Your task to perform on an android device: change text size in settings app Image 0: 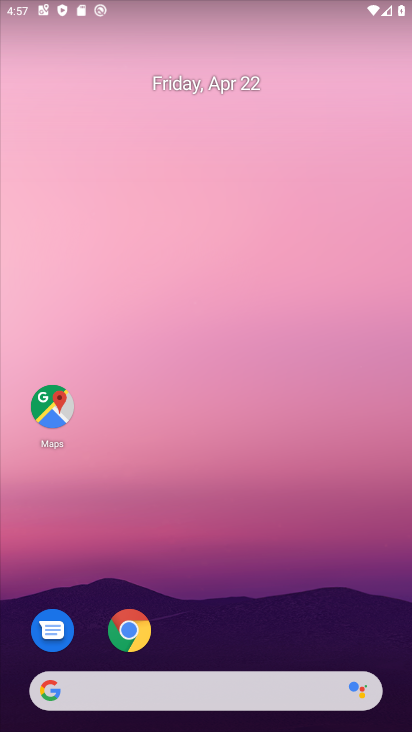
Step 0: drag from (232, 566) to (165, 36)
Your task to perform on an android device: change text size in settings app Image 1: 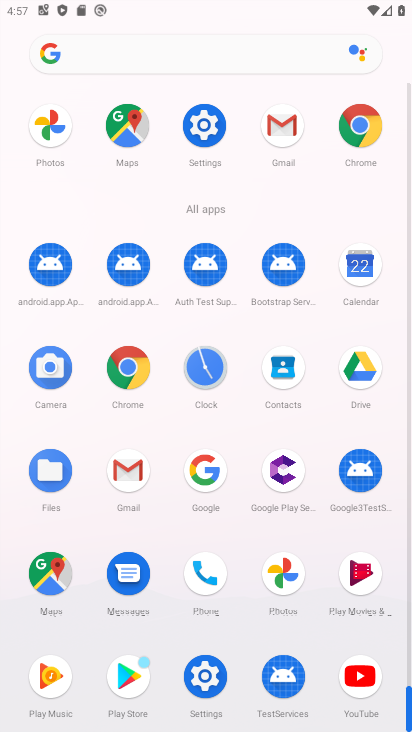
Step 1: click (203, 119)
Your task to perform on an android device: change text size in settings app Image 2: 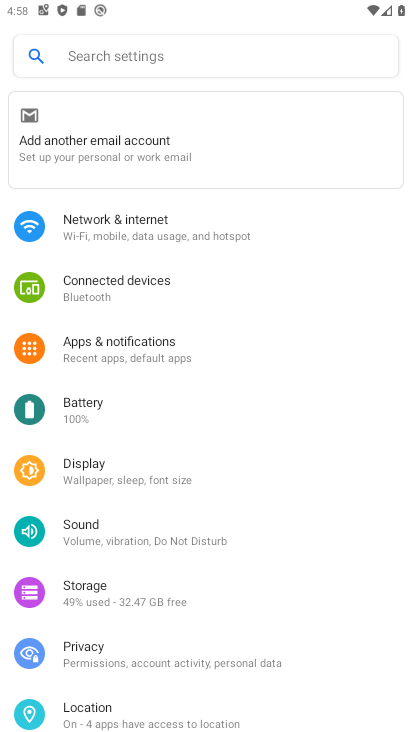
Step 2: drag from (260, 472) to (257, 284)
Your task to perform on an android device: change text size in settings app Image 3: 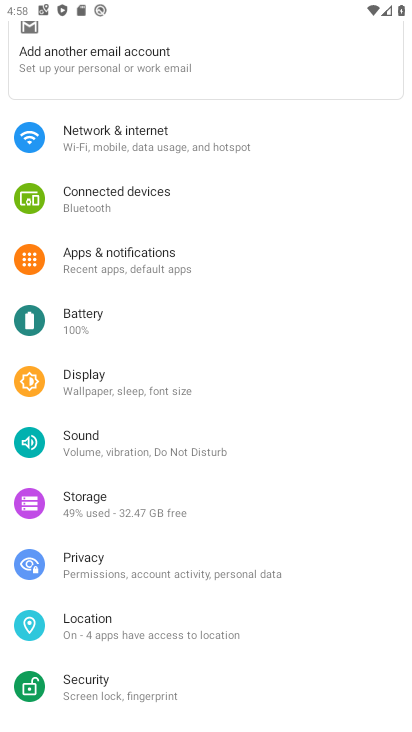
Step 3: click (133, 376)
Your task to perform on an android device: change text size in settings app Image 4: 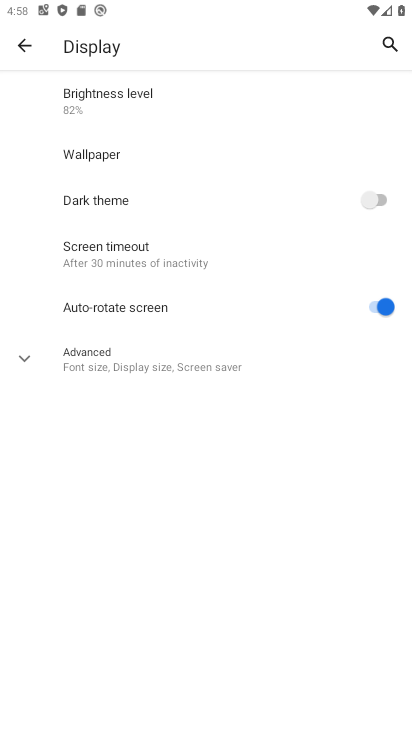
Step 4: click (83, 359)
Your task to perform on an android device: change text size in settings app Image 5: 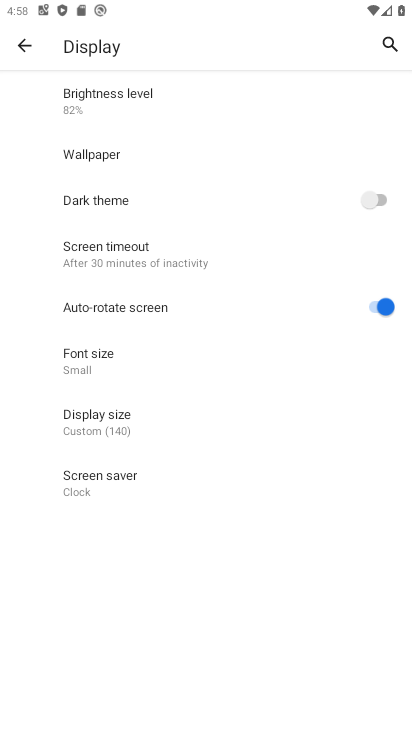
Step 5: click (126, 360)
Your task to perform on an android device: change text size in settings app Image 6: 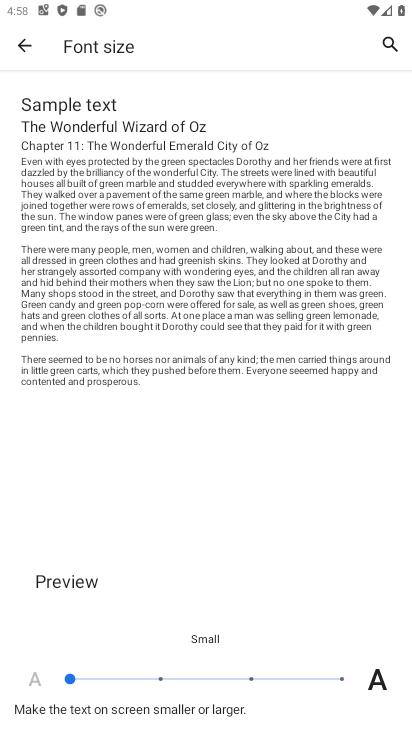
Step 6: click (256, 674)
Your task to perform on an android device: change text size in settings app Image 7: 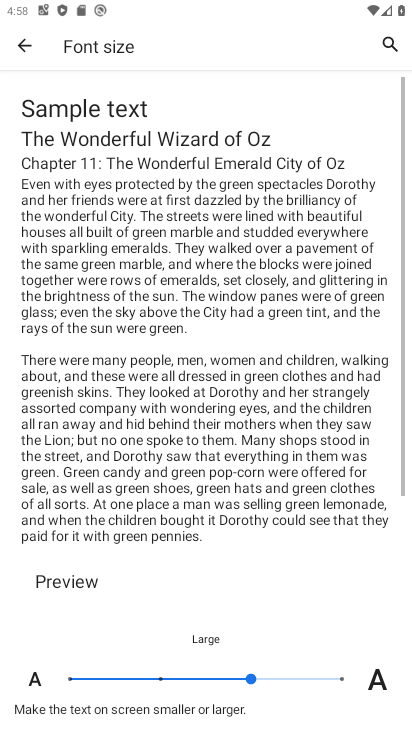
Step 7: click (326, 673)
Your task to perform on an android device: change text size in settings app Image 8: 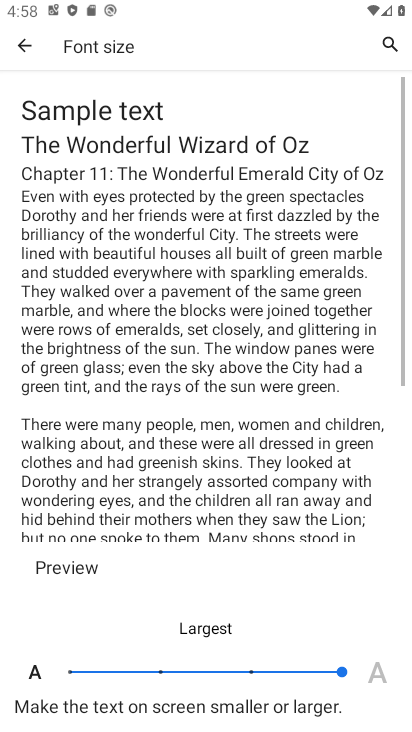
Step 8: task complete